Your task to perform on an android device: toggle javascript in the chrome app Image 0: 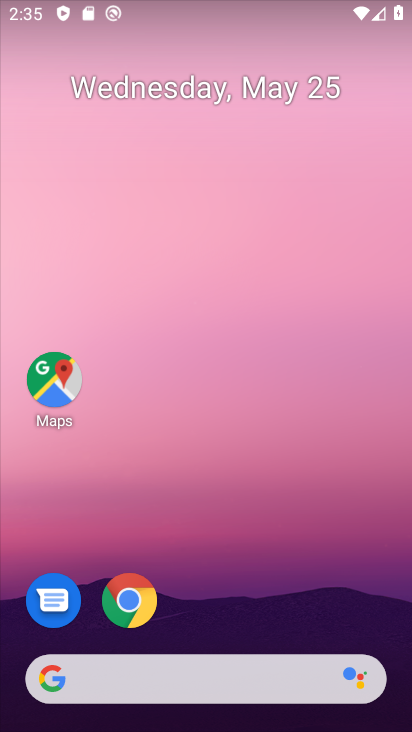
Step 0: press home button
Your task to perform on an android device: toggle javascript in the chrome app Image 1: 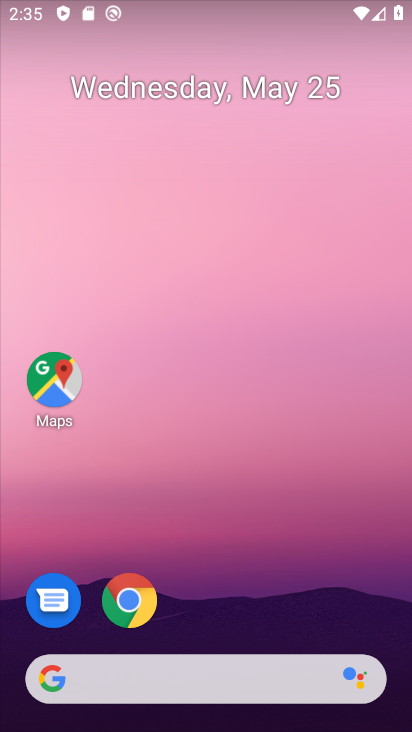
Step 1: click (139, 594)
Your task to perform on an android device: toggle javascript in the chrome app Image 2: 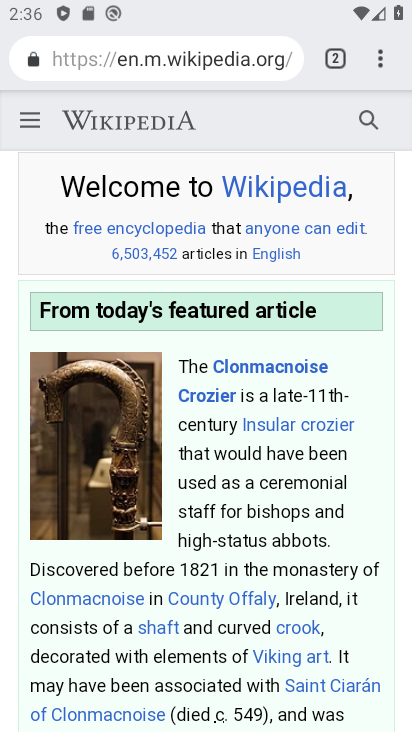
Step 2: click (378, 56)
Your task to perform on an android device: toggle javascript in the chrome app Image 3: 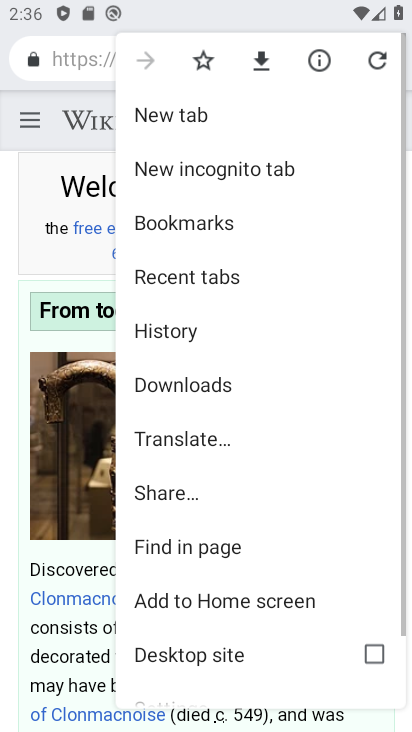
Step 3: drag from (190, 587) to (273, 152)
Your task to perform on an android device: toggle javascript in the chrome app Image 4: 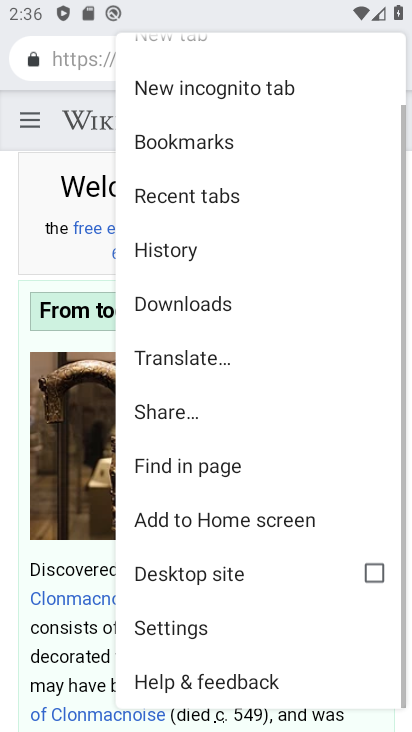
Step 4: click (169, 622)
Your task to perform on an android device: toggle javascript in the chrome app Image 5: 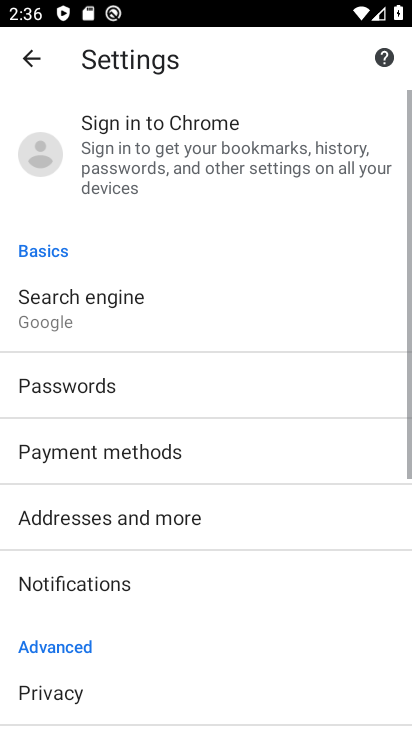
Step 5: drag from (43, 665) to (230, 201)
Your task to perform on an android device: toggle javascript in the chrome app Image 6: 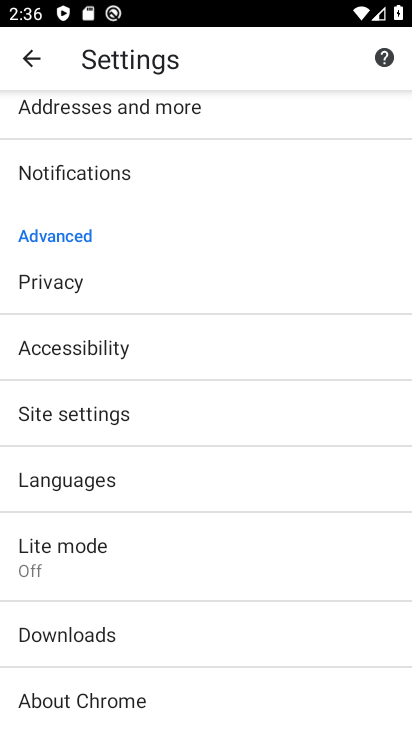
Step 6: click (79, 422)
Your task to perform on an android device: toggle javascript in the chrome app Image 7: 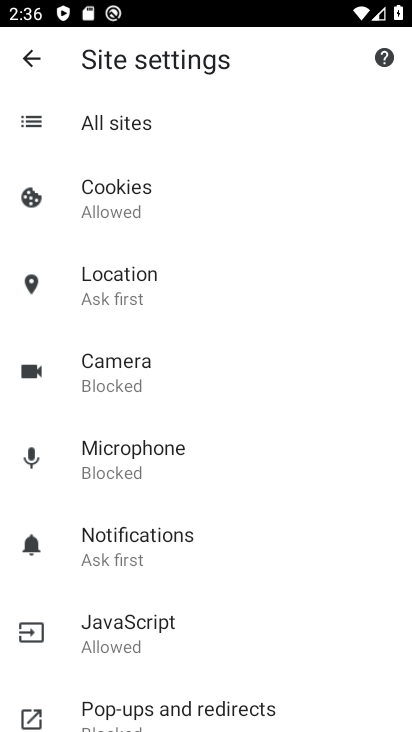
Step 7: click (97, 644)
Your task to perform on an android device: toggle javascript in the chrome app Image 8: 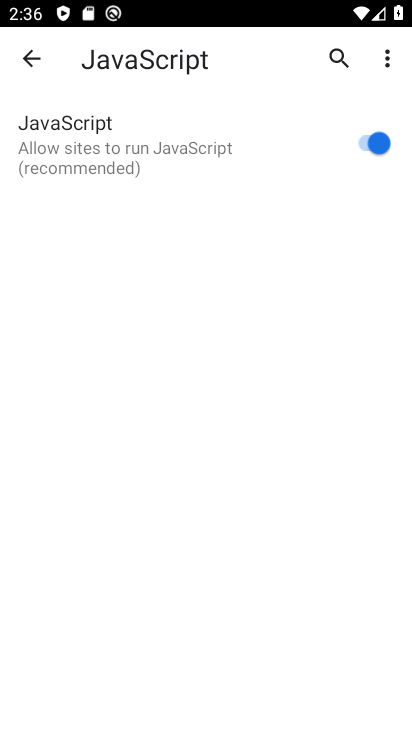
Step 8: click (375, 141)
Your task to perform on an android device: toggle javascript in the chrome app Image 9: 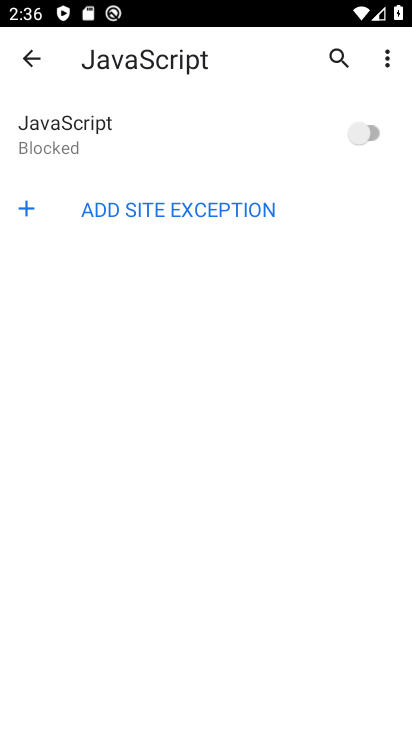
Step 9: task complete